Your task to perform on an android device: stop showing notifications on the lock screen Image 0: 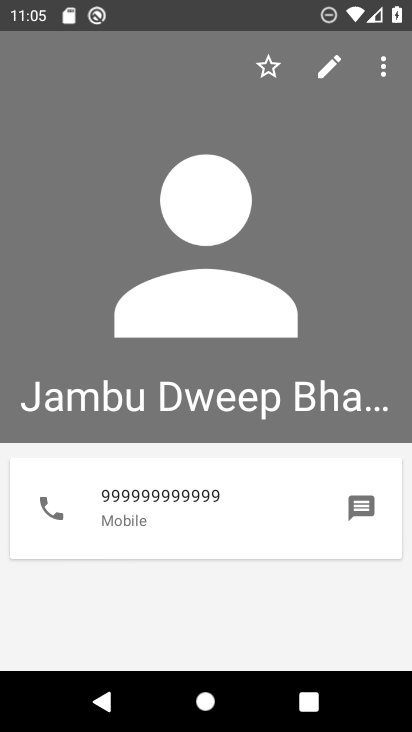
Step 0: press home button
Your task to perform on an android device: stop showing notifications on the lock screen Image 1: 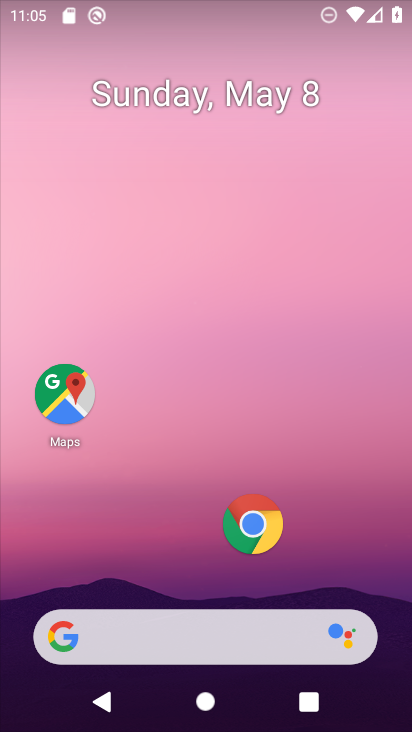
Step 1: drag from (165, 514) to (238, 33)
Your task to perform on an android device: stop showing notifications on the lock screen Image 2: 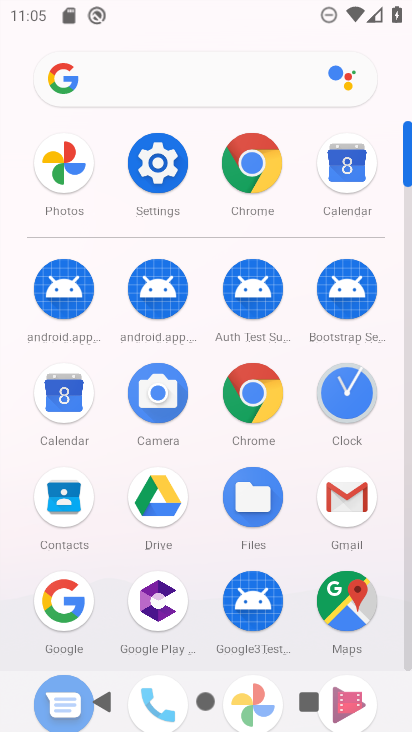
Step 2: click (149, 139)
Your task to perform on an android device: stop showing notifications on the lock screen Image 3: 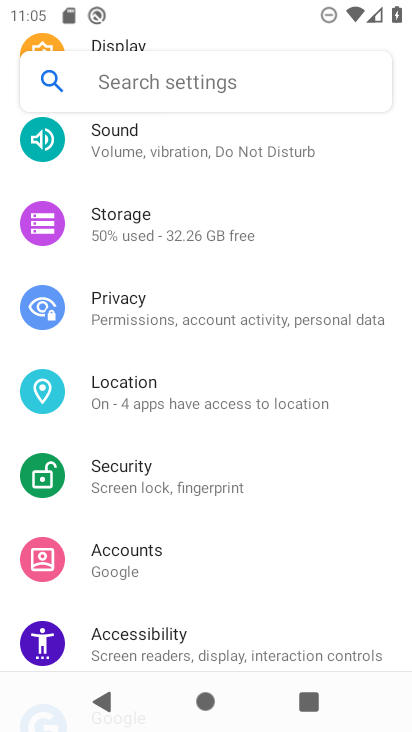
Step 3: drag from (278, 323) to (327, 631)
Your task to perform on an android device: stop showing notifications on the lock screen Image 4: 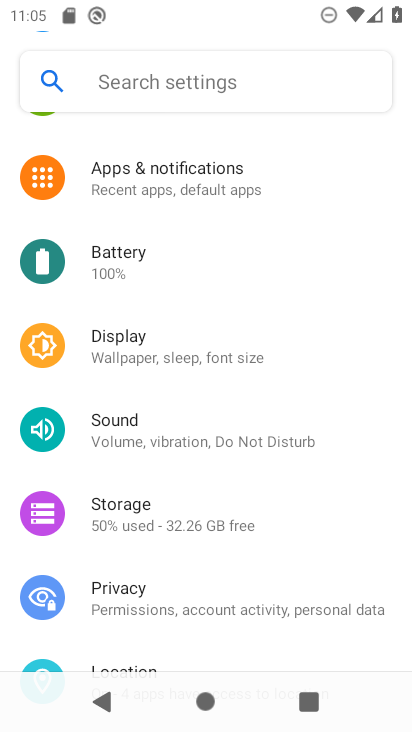
Step 4: click (226, 161)
Your task to perform on an android device: stop showing notifications on the lock screen Image 5: 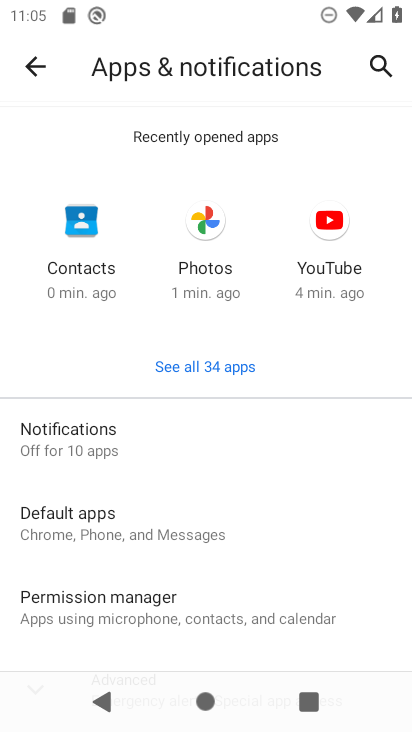
Step 5: click (120, 436)
Your task to perform on an android device: stop showing notifications on the lock screen Image 6: 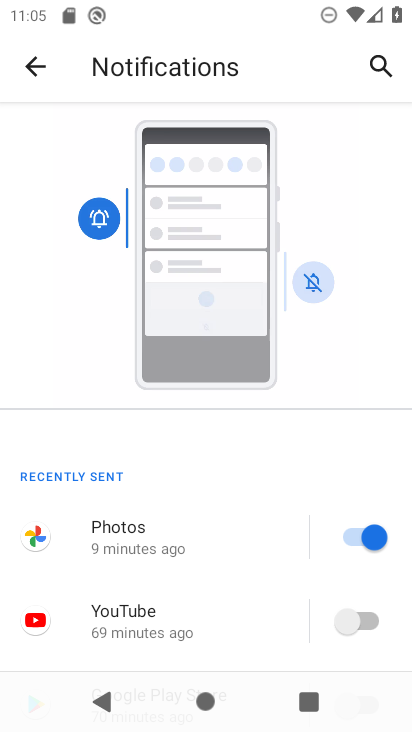
Step 6: drag from (207, 586) to (286, 180)
Your task to perform on an android device: stop showing notifications on the lock screen Image 7: 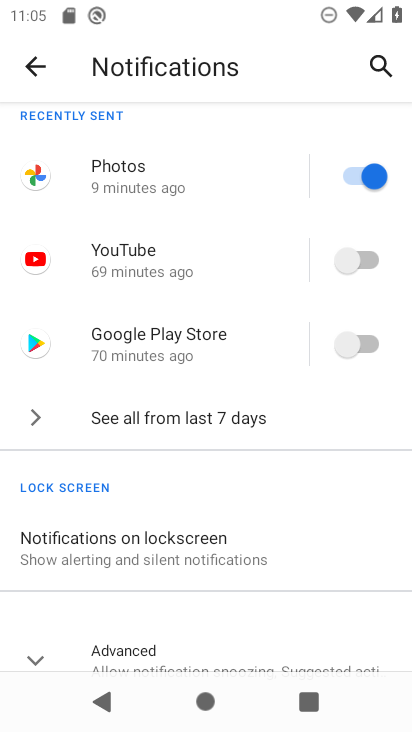
Step 7: drag from (227, 508) to (229, 206)
Your task to perform on an android device: stop showing notifications on the lock screen Image 8: 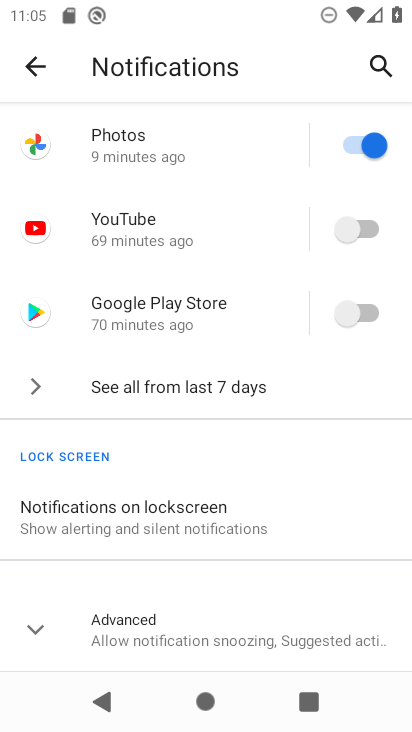
Step 8: click (216, 518)
Your task to perform on an android device: stop showing notifications on the lock screen Image 9: 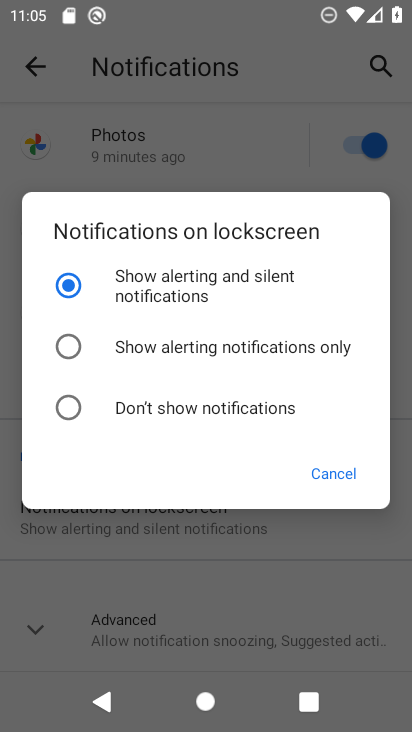
Step 9: click (64, 396)
Your task to perform on an android device: stop showing notifications on the lock screen Image 10: 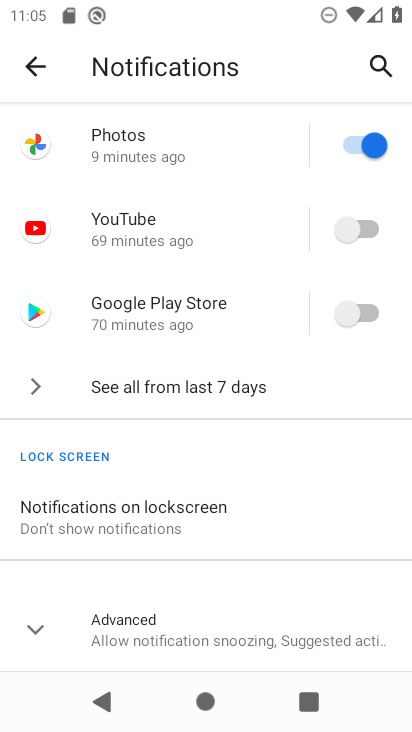
Step 10: task complete